Your task to perform on an android device: Open the calendar app, open the side menu, and click the "Day" option Image 0: 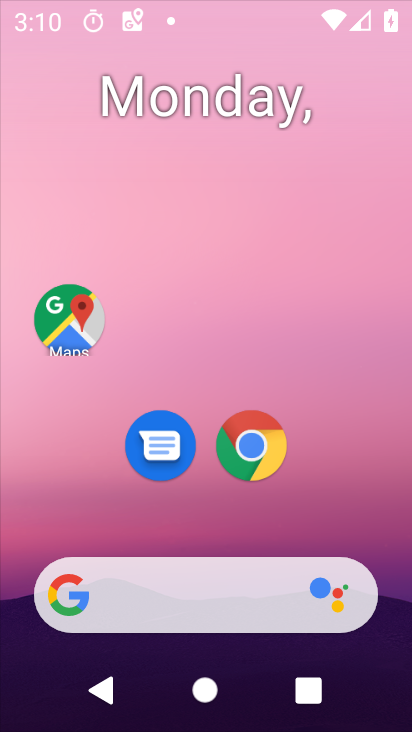
Step 0: drag from (267, 592) to (245, 132)
Your task to perform on an android device: Open the calendar app, open the side menu, and click the "Day" option Image 1: 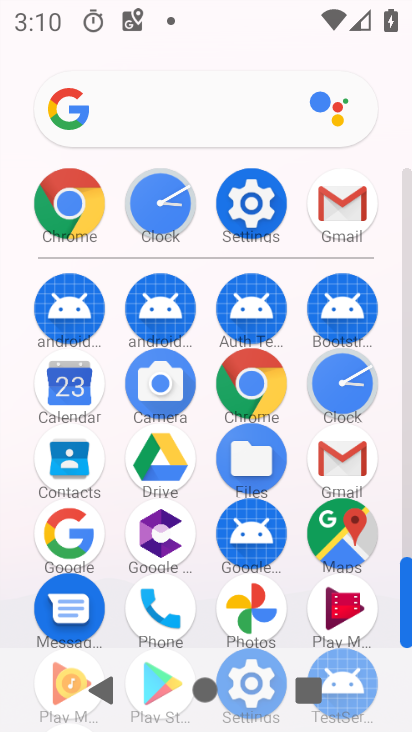
Step 1: click (74, 380)
Your task to perform on an android device: Open the calendar app, open the side menu, and click the "Day" option Image 2: 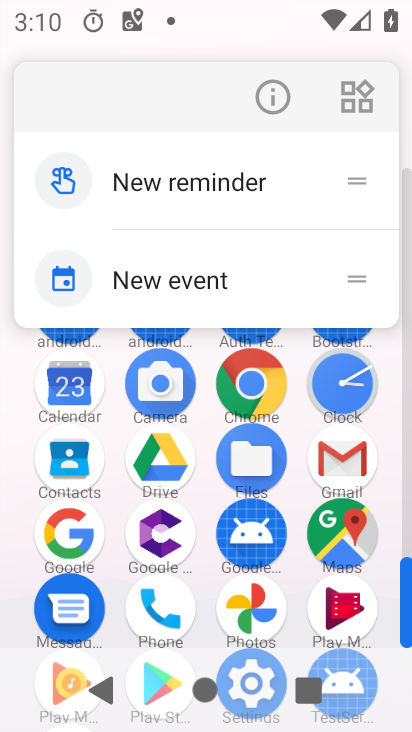
Step 2: click (74, 389)
Your task to perform on an android device: Open the calendar app, open the side menu, and click the "Day" option Image 3: 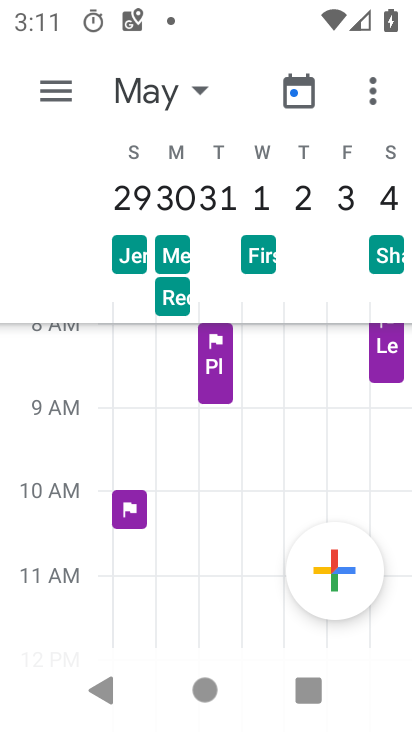
Step 3: click (59, 88)
Your task to perform on an android device: Open the calendar app, open the side menu, and click the "Day" option Image 4: 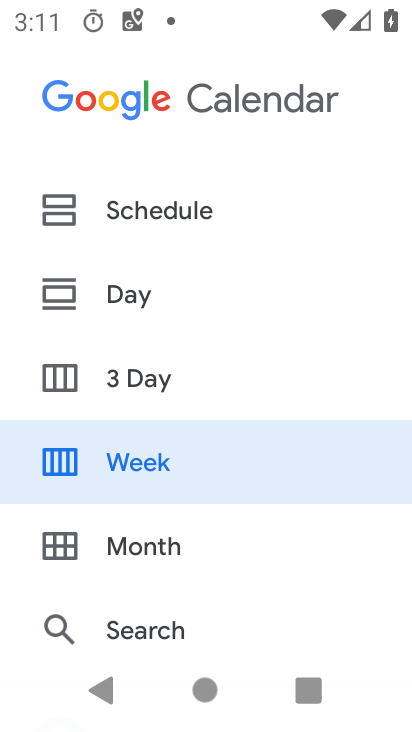
Step 4: click (111, 284)
Your task to perform on an android device: Open the calendar app, open the side menu, and click the "Day" option Image 5: 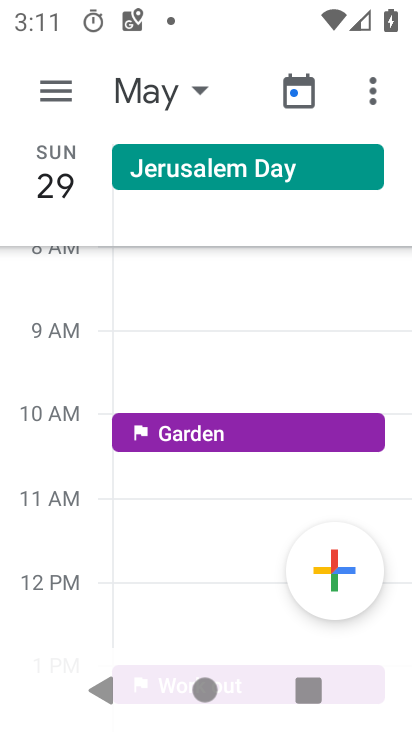
Step 5: task complete